Your task to perform on an android device: manage bookmarks in the chrome app Image 0: 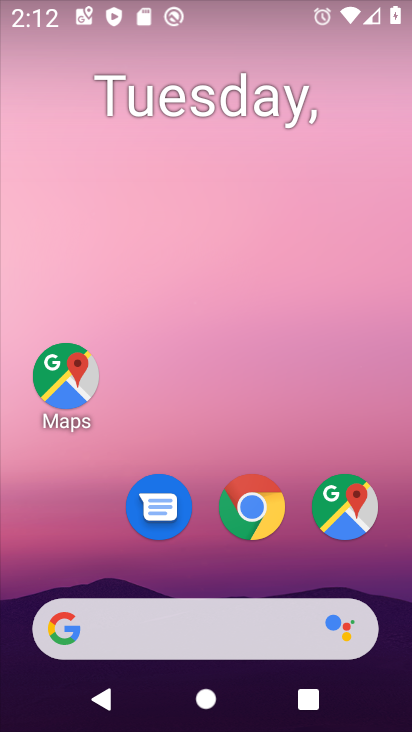
Step 0: click (306, 548)
Your task to perform on an android device: manage bookmarks in the chrome app Image 1: 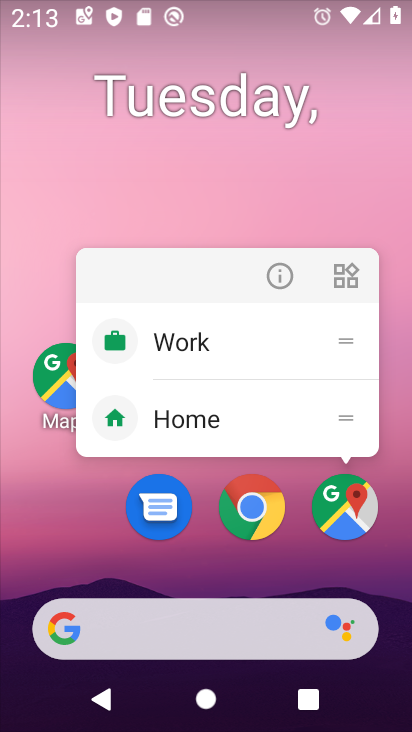
Step 1: click (254, 508)
Your task to perform on an android device: manage bookmarks in the chrome app Image 2: 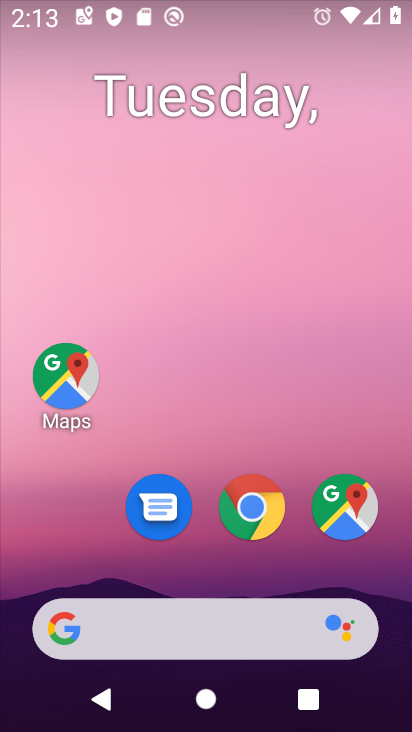
Step 2: click (243, 495)
Your task to perform on an android device: manage bookmarks in the chrome app Image 3: 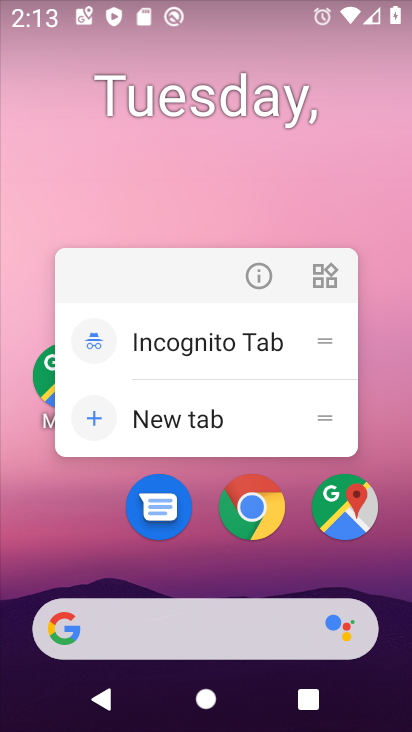
Step 3: click (244, 500)
Your task to perform on an android device: manage bookmarks in the chrome app Image 4: 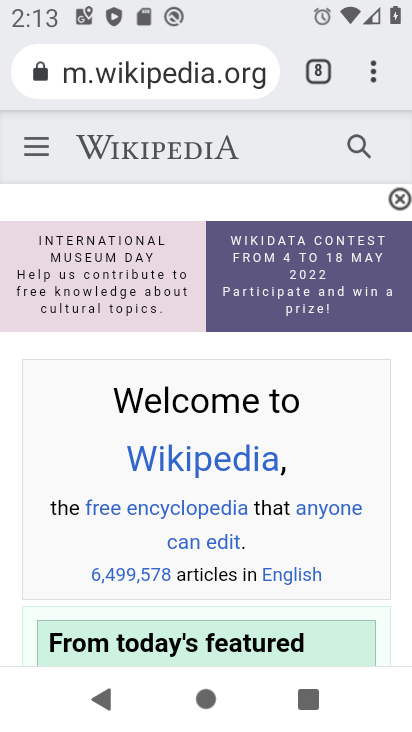
Step 4: click (372, 74)
Your task to perform on an android device: manage bookmarks in the chrome app Image 5: 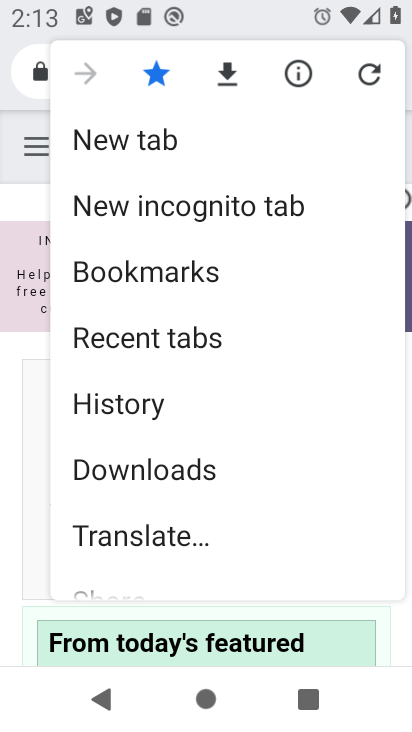
Step 5: click (168, 269)
Your task to perform on an android device: manage bookmarks in the chrome app Image 6: 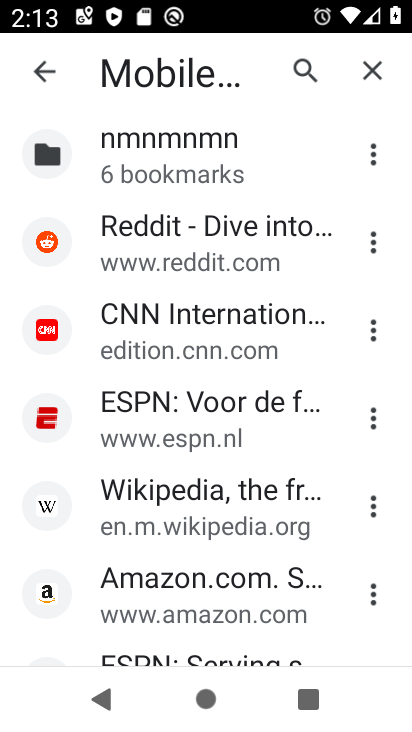
Step 6: click (128, 258)
Your task to perform on an android device: manage bookmarks in the chrome app Image 7: 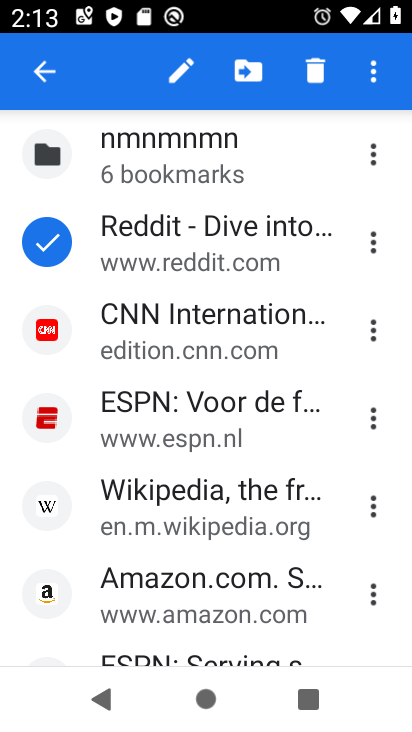
Step 7: click (263, 68)
Your task to perform on an android device: manage bookmarks in the chrome app Image 8: 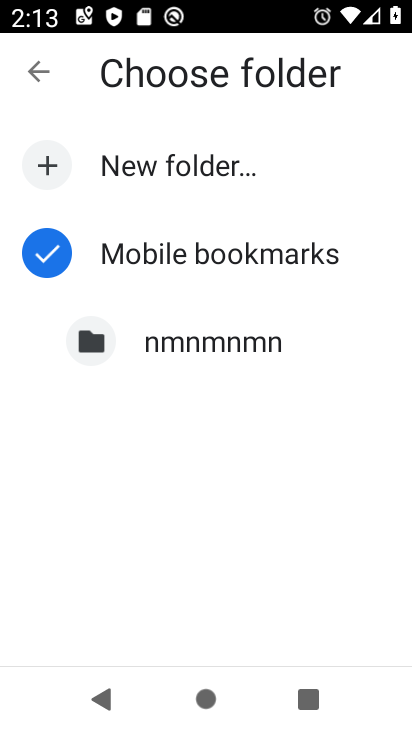
Step 8: click (182, 324)
Your task to perform on an android device: manage bookmarks in the chrome app Image 9: 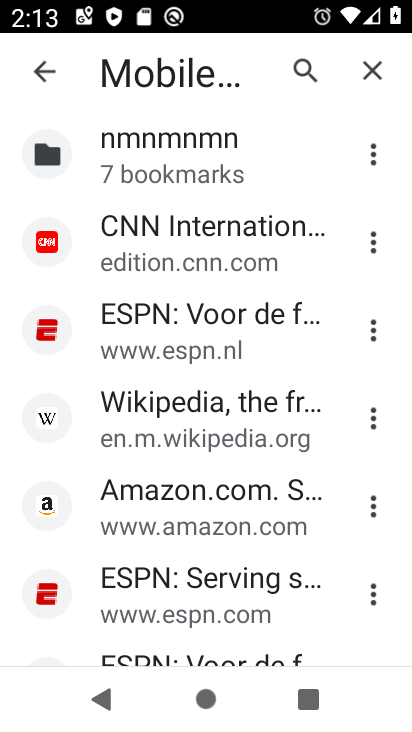
Step 9: task complete